Your task to perform on an android device: make emails show in primary in the gmail app Image 0: 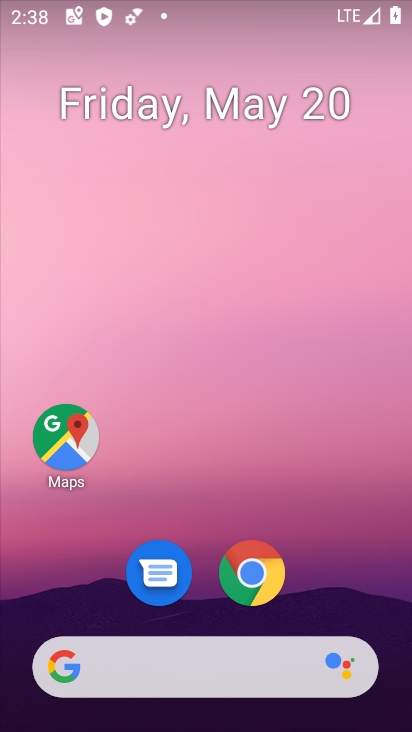
Step 0: drag from (374, 599) to (261, 160)
Your task to perform on an android device: make emails show in primary in the gmail app Image 1: 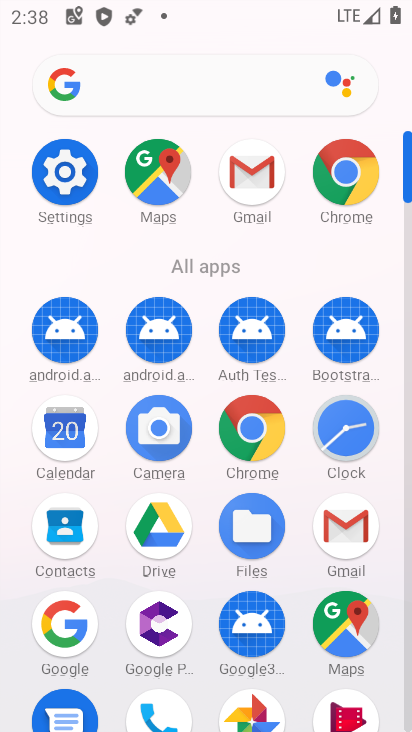
Step 1: click (259, 181)
Your task to perform on an android device: make emails show in primary in the gmail app Image 2: 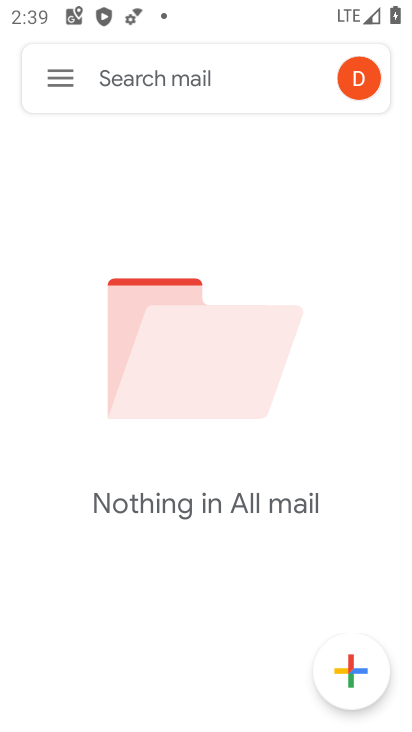
Step 2: click (58, 74)
Your task to perform on an android device: make emails show in primary in the gmail app Image 3: 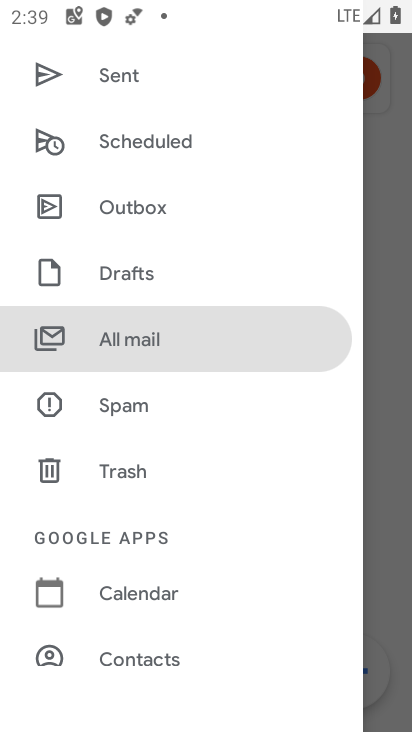
Step 3: drag from (185, 693) to (145, 284)
Your task to perform on an android device: make emails show in primary in the gmail app Image 4: 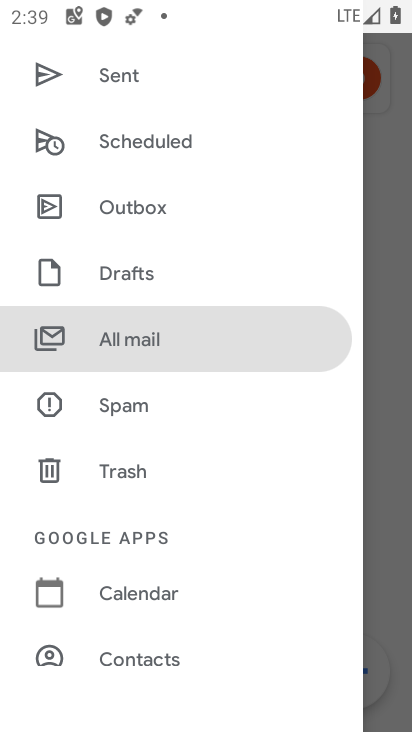
Step 4: drag from (180, 722) to (147, 384)
Your task to perform on an android device: make emails show in primary in the gmail app Image 5: 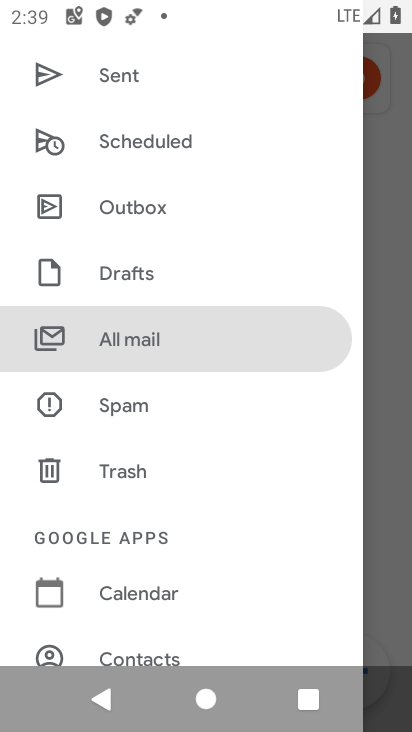
Step 5: drag from (229, 606) to (216, 217)
Your task to perform on an android device: make emails show in primary in the gmail app Image 6: 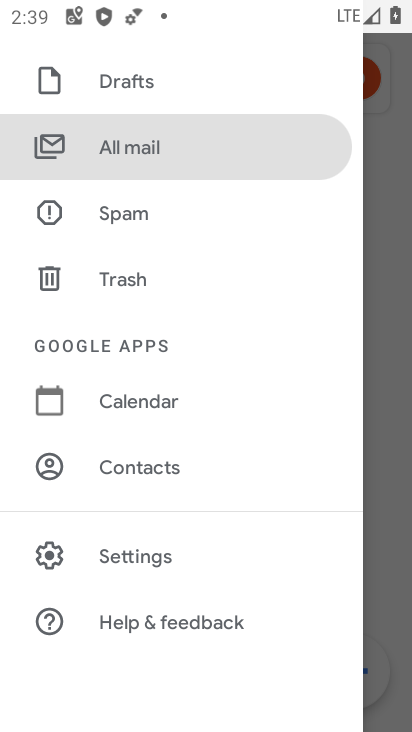
Step 6: click (154, 556)
Your task to perform on an android device: make emails show in primary in the gmail app Image 7: 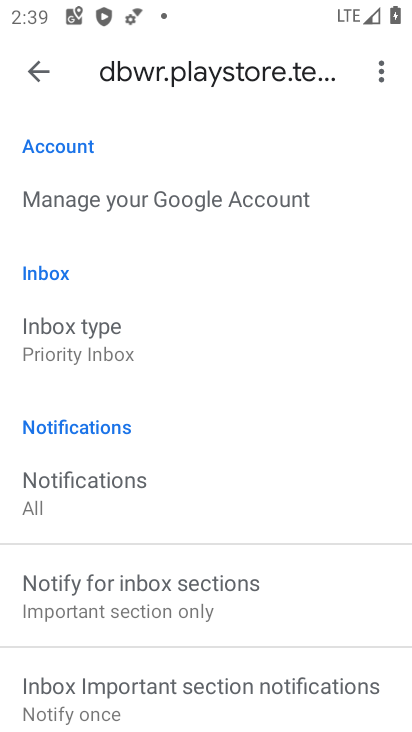
Step 7: click (153, 339)
Your task to perform on an android device: make emails show in primary in the gmail app Image 8: 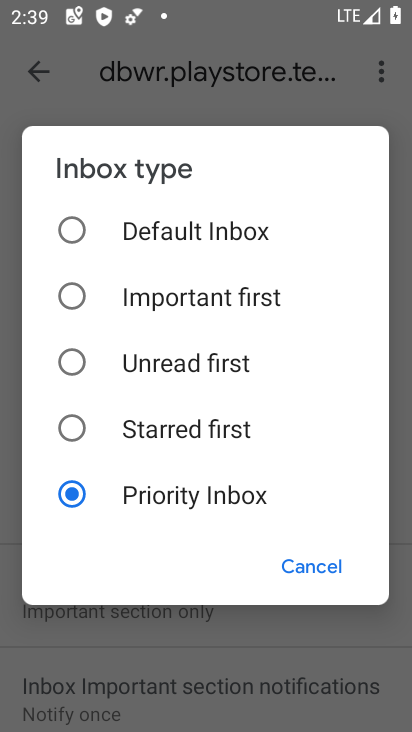
Step 8: click (163, 218)
Your task to perform on an android device: make emails show in primary in the gmail app Image 9: 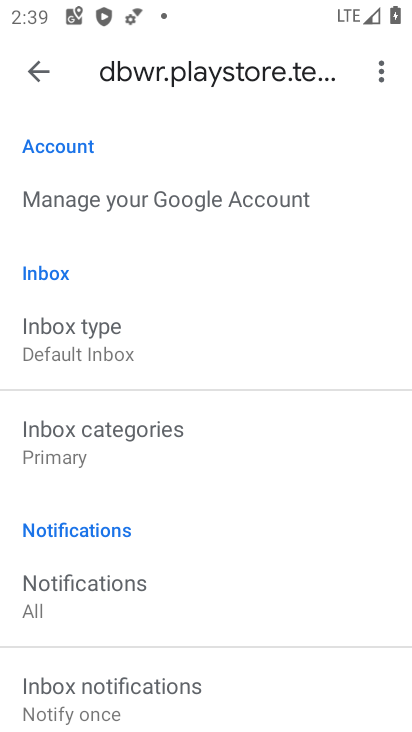
Step 9: task complete